Your task to perform on an android device: turn on the 24-hour format for clock Image 0: 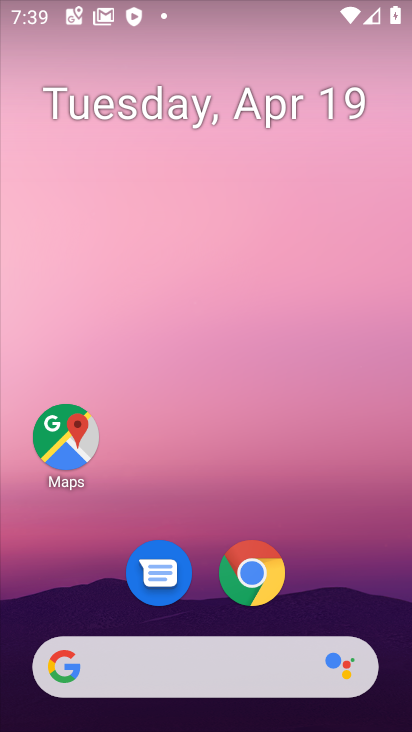
Step 0: drag from (373, 584) to (336, 150)
Your task to perform on an android device: turn on the 24-hour format for clock Image 1: 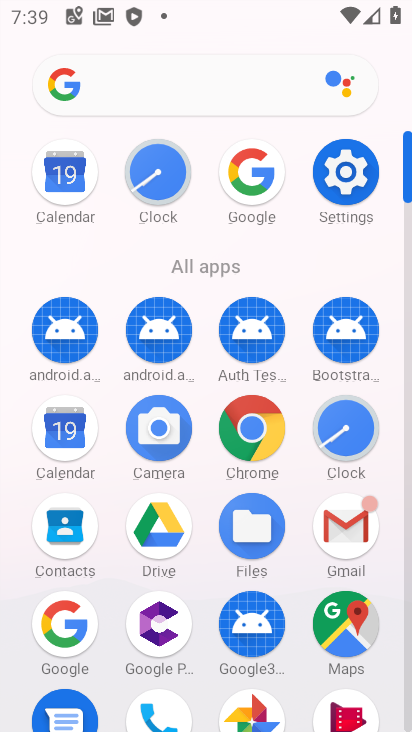
Step 1: click (174, 172)
Your task to perform on an android device: turn on the 24-hour format for clock Image 2: 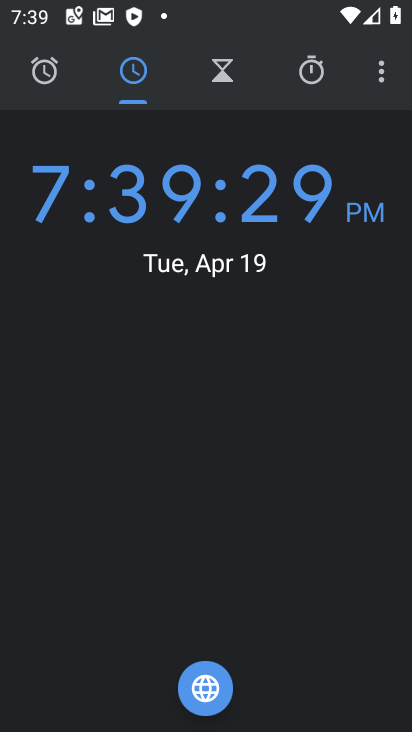
Step 2: click (380, 73)
Your task to perform on an android device: turn on the 24-hour format for clock Image 3: 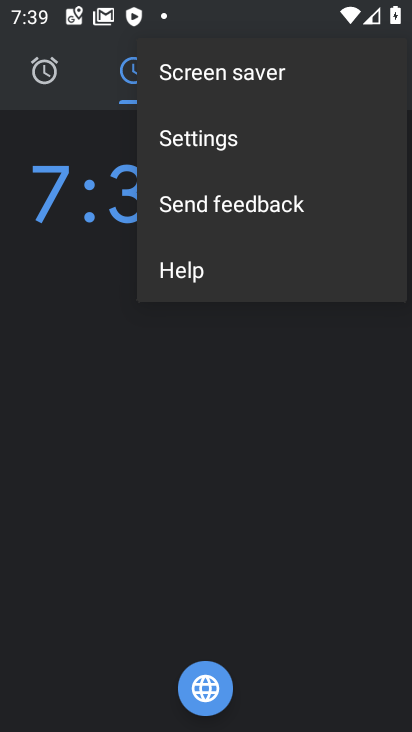
Step 3: click (209, 135)
Your task to perform on an android device: turn on the 24-hour format for clock Image 4: 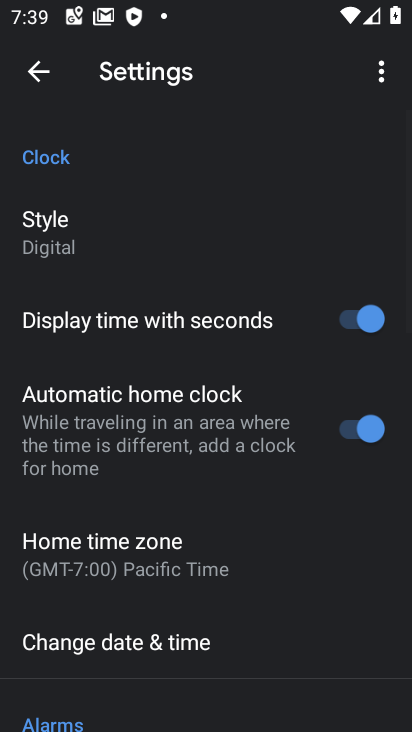
Step 4: drag from (285, 633) to (256, 183)
Your task to perform on an android device: turn on the 24-hour format for clock Image 5: 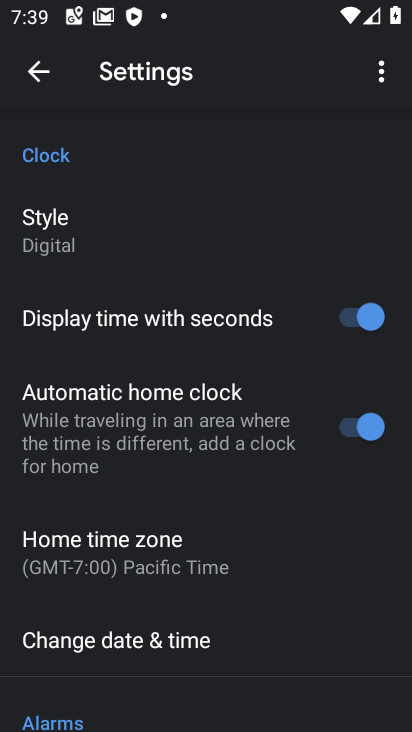
Step 5: click (273, 222)
Your task to perform on an android device: turn on the 24-hour format for clock Image 6: 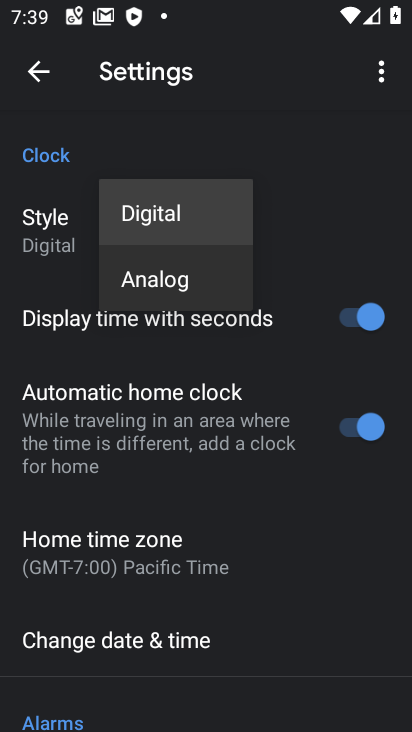
Step 6: click (186, 632)
Your task to perform on an android device: turn on the 24-hour format for clock Image 7: 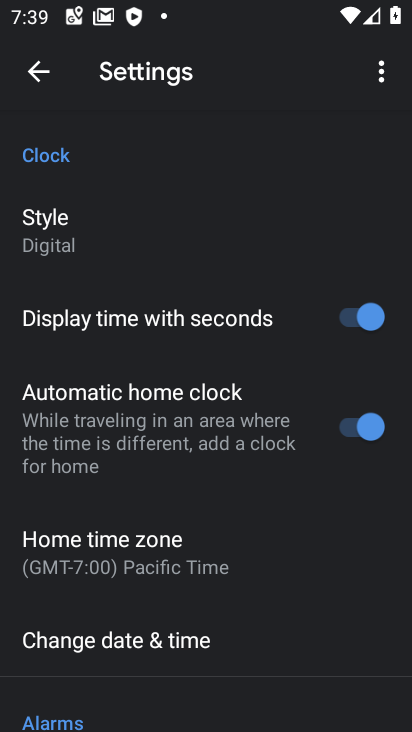
Step 7: click (126, 639)
Your task to perform on an android device: turn on the 24-hour format for clock Image 8: 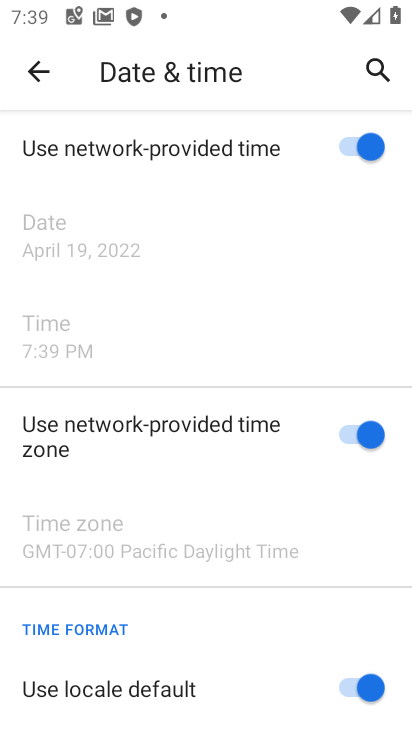
Step 8: drag from (260, 676) to (318, 254)
Your task to perform on an android device: turn on the 24-hour format for clock Image 9: 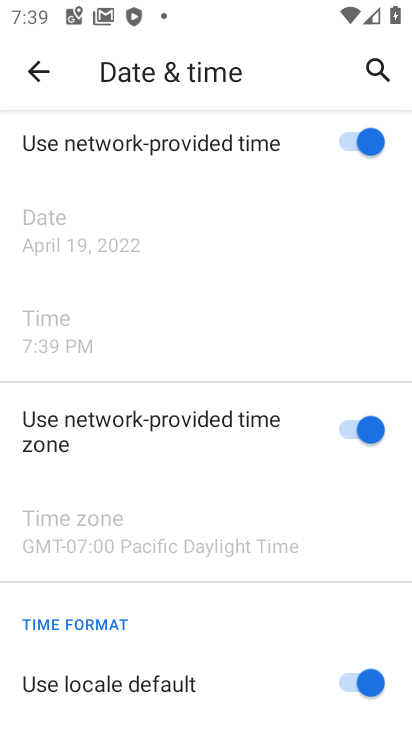
Step 9: drag from (298, 657) to (305, 308)
Your task to perform on an android device: turn on the 24-hour format for clock Image 10: 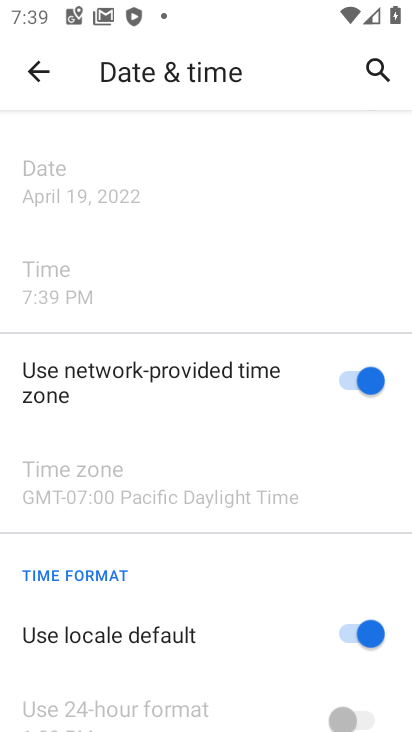
Step 10: drag from (225, 689) to (217, 249)
Your task to perform on an android device: turn on the 24-hour format for clock Image 11: 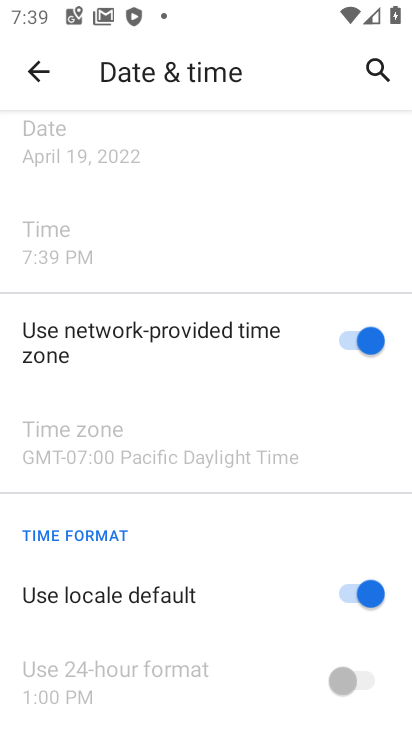
Step 11: click (354, 594)
Your task to perform on an android device: turn on the 24-hour format for clock Image 12: 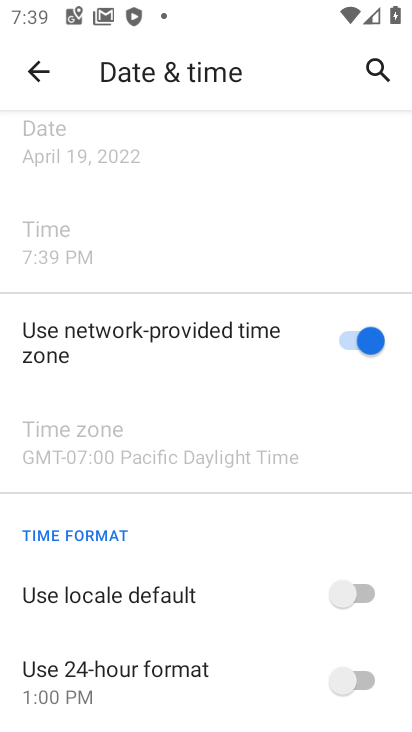
Step 12: click (356, 682)
Your task to perform on an android device: turn on the 24-hour format for clock Image 13: 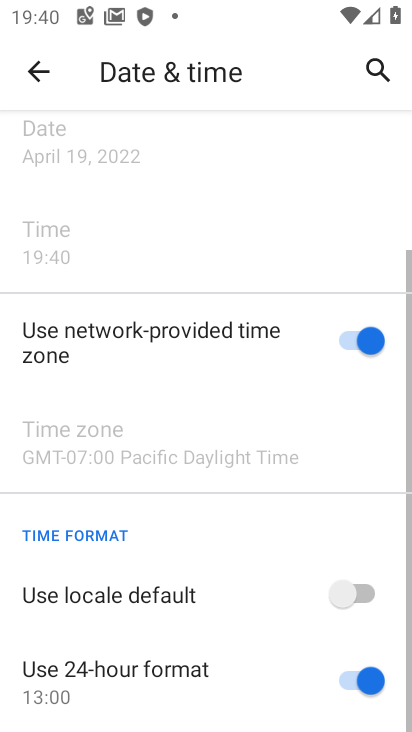
Step 13: task complete